Your task to perform on an android device: Open Amazon Image 0: 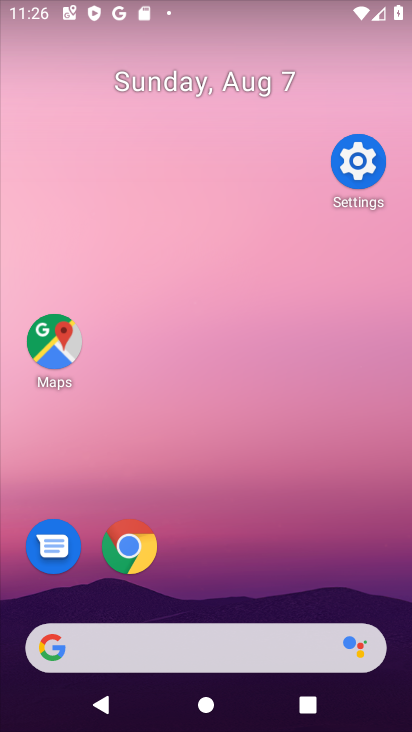
Step 0: drag from (213, 628) to (178, 373)
Your task to perform on an android device: Open Amazon Image 1: 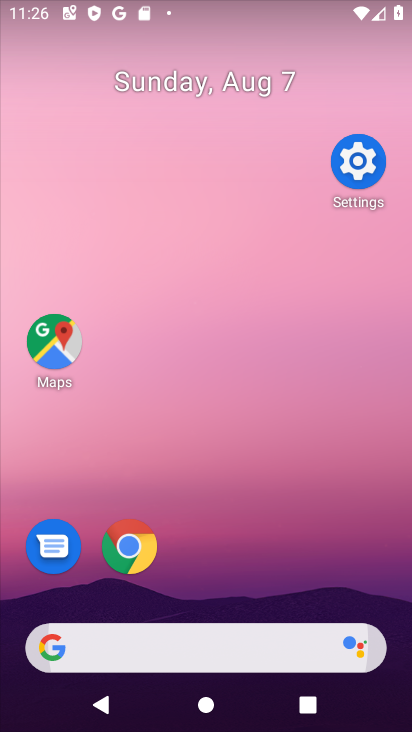
Step 1: drag from (242, 200) to (216, 41)
Your task to perform on an android device: Open Amazon Image 2: 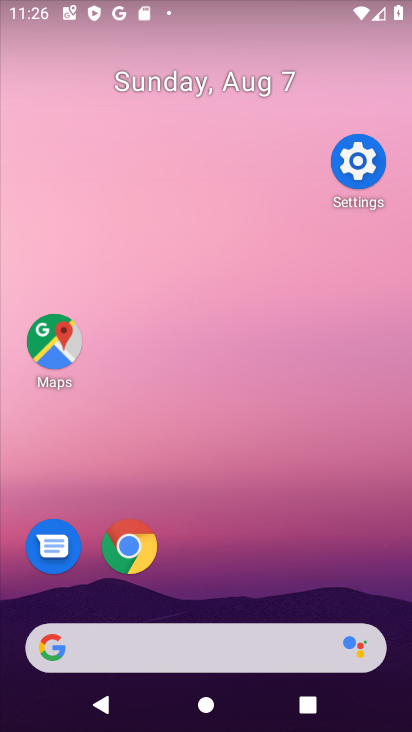
Step 2: drag from (238, 487) to (239, 109)
Your task to perform on an android device: Open Amazon Image 3: 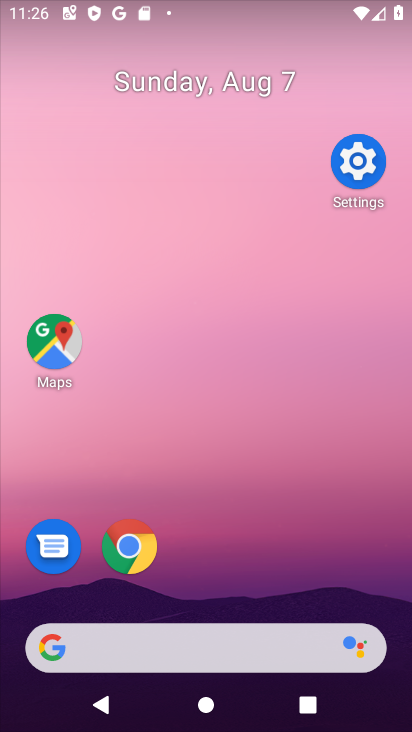
Step 3: drag from (256, 518) to (303, 61)
Your task to perform on an android device: Open Amazon Image 4: 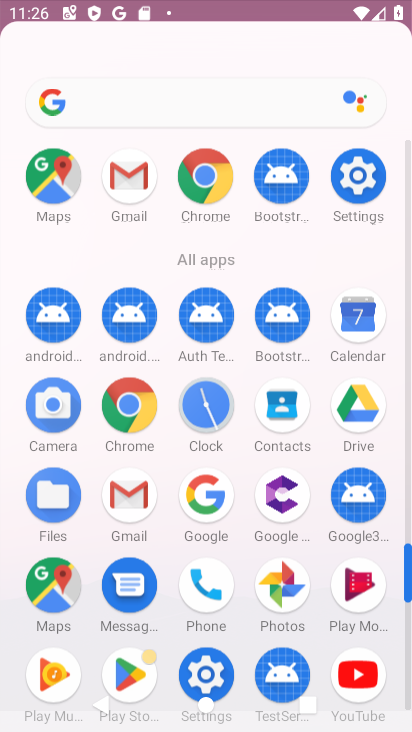
Step 4: drag from (257, 203) to (262, 69)
Your task to perform on an android device: Open Amazon Image 5: 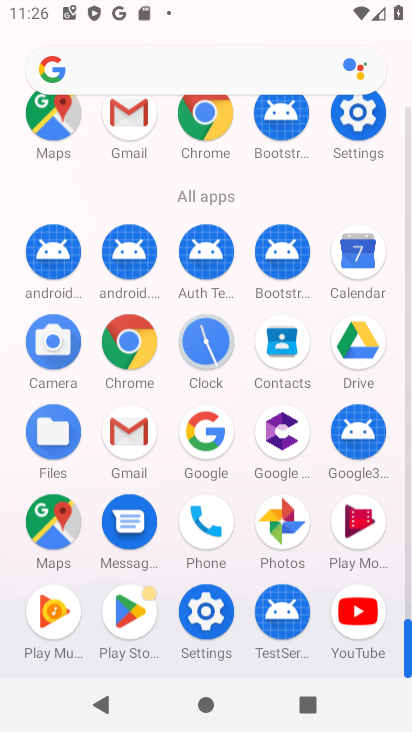
Step 5: drag from (272, 522) to (297, 98)
Your task to perform on an android device: Open Amazon Image 6: 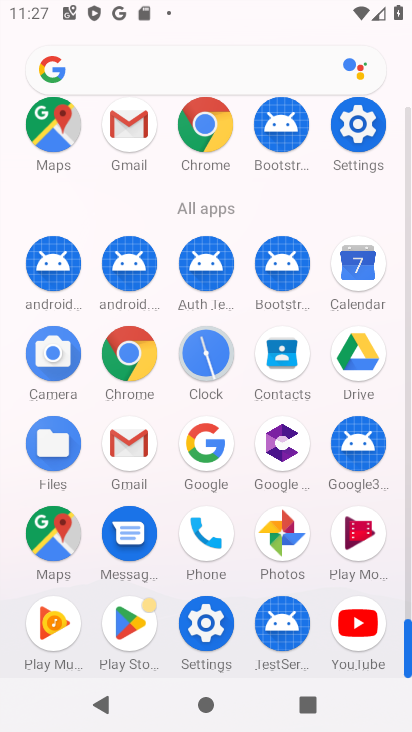
Step 6: click (180, 127)
Your task to perform on an android device: Open Amazon Image 7: 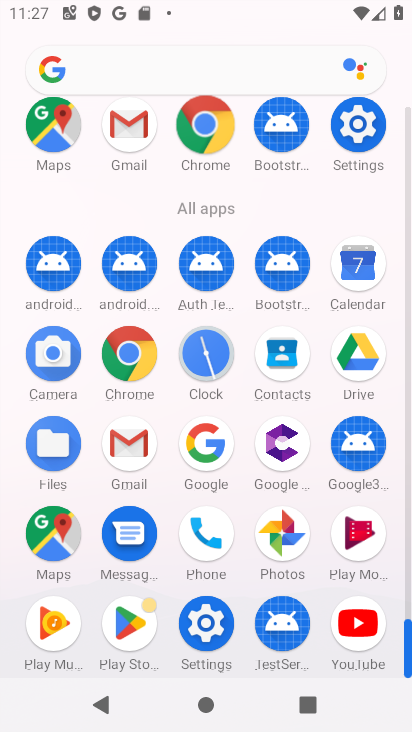
Step 7: click (186, 128)
Your task to perform on an android device: Open Amazon Image 8: 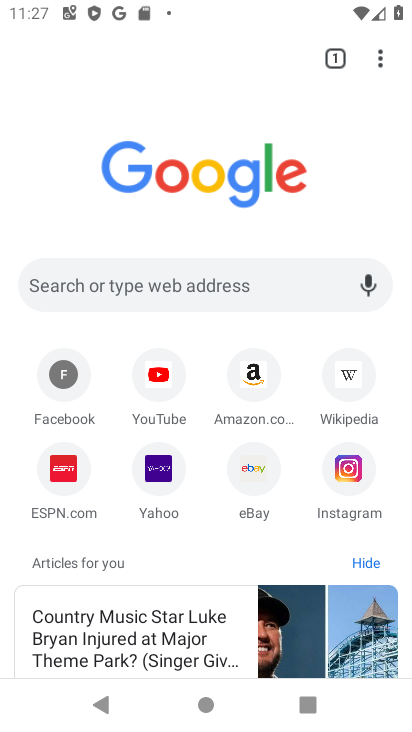
Step 8: click (239, 362)
Your task to perform on an android device: Open Amazon Image 9: 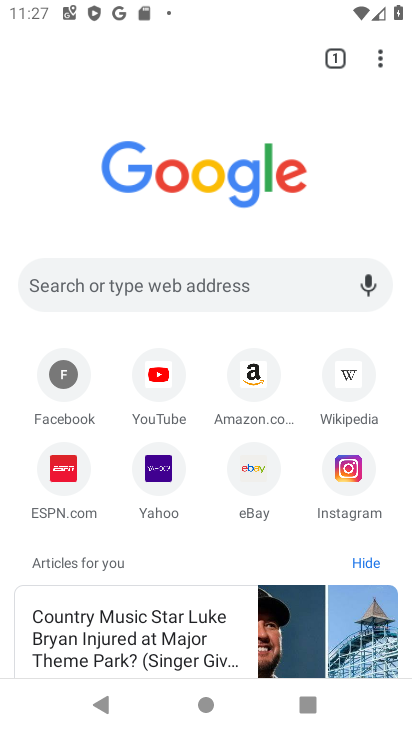
Step 9: click (243, 364)
Your task to perform on an android device: Open Amazon Image 10: 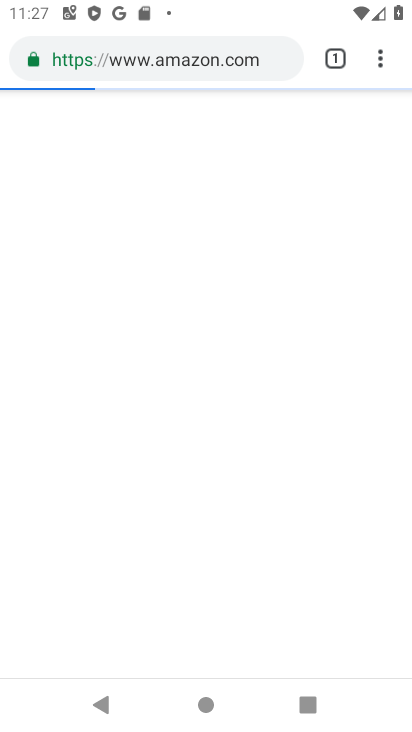
Step 10: click (252, 375)
Your task to perform on an android device: Open Amazon Image 11: 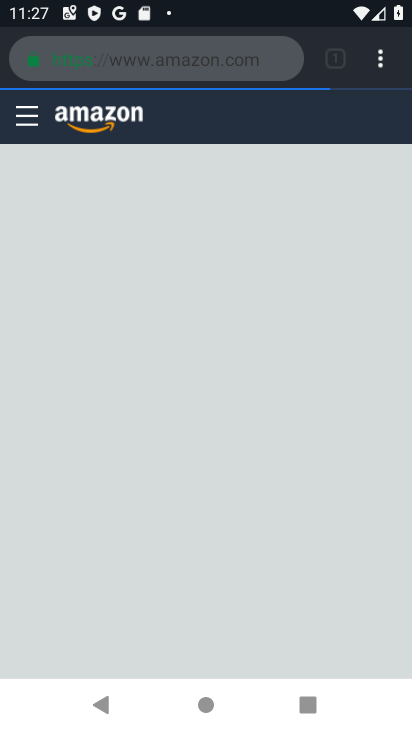
Step 11: task complete